Your task to perform on an android device: Open Google Chrome and open the bookmarks view Image 0: 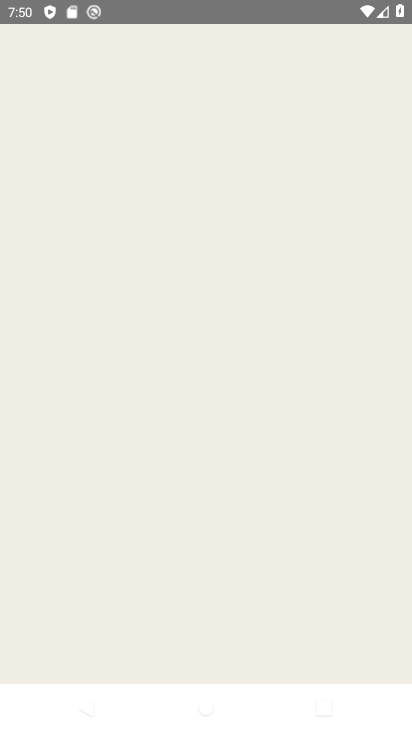
Step 0: drag from (278, 539) to (293, 262)
Your task to perform on an android device: Open Google Chrome and open the bookmarks view Image 1: 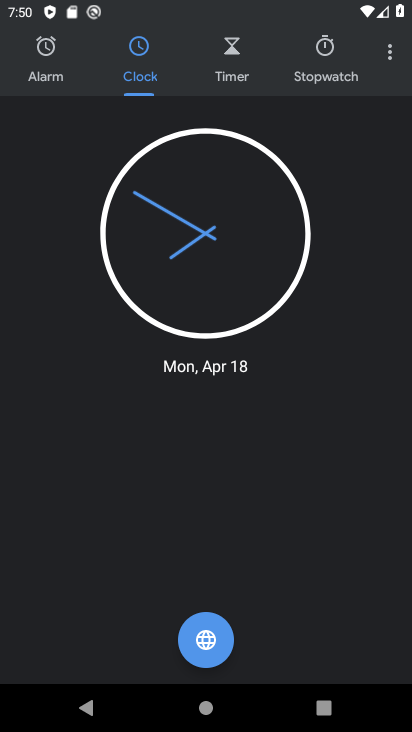
Step 1: press home button
Your task to perform on an android device: Open Google Chrome and open the bookmarks view Image 2: 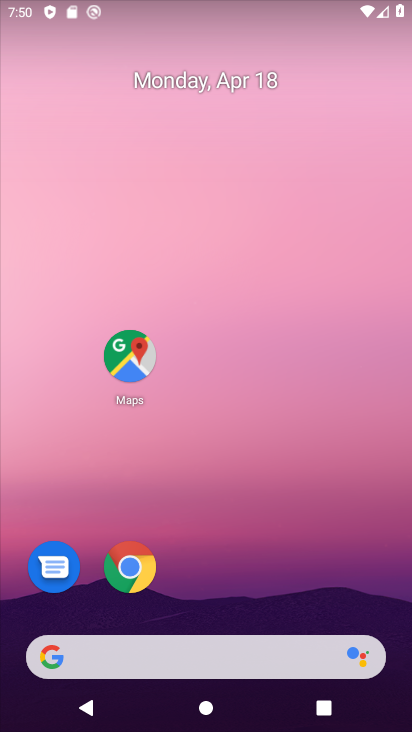
Step 2: drag from (237, 722) to (286, 251)
Your task to perform on an android device: Open Google Chrome and open the bookmarks view Image 3: 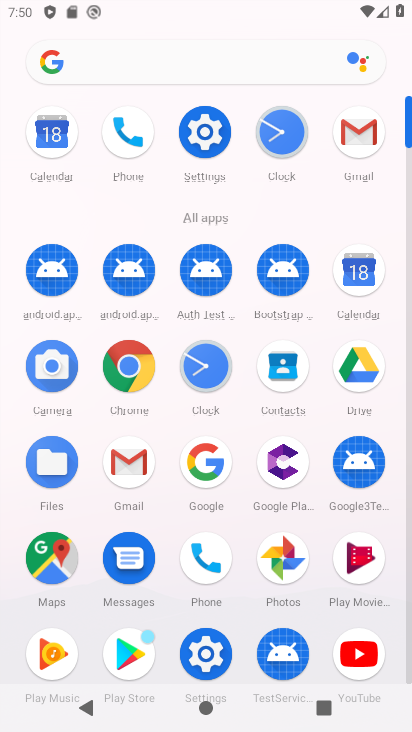
Step 3: click (292, 136)
Your task to perform on an android device: Open Google Chrome and open the bookmarks view Image 4: 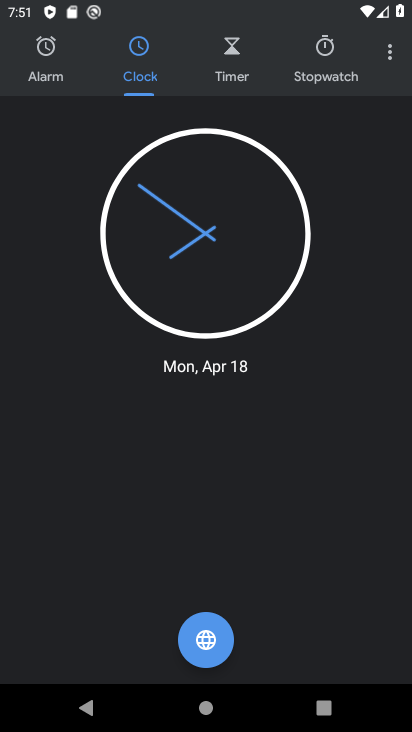
Step 4: press home button
Your task to perform on an android device: Open Google Chrome and open the bookmarks view Image 5: 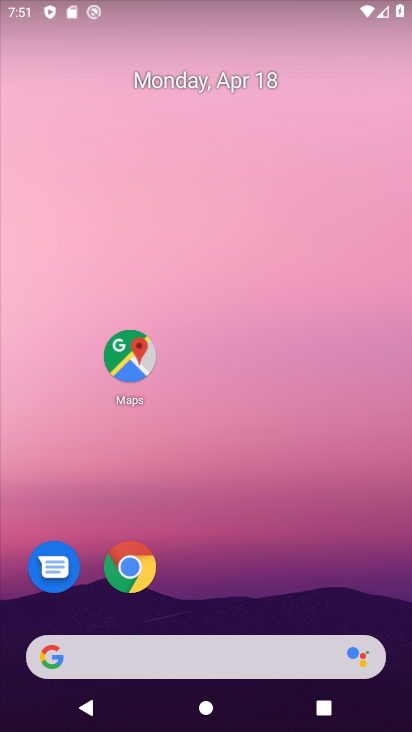
Step 5: click (135, 583)
Your task to perform on an android device: Open Google Chrome and open the bookmarks view Image 6: 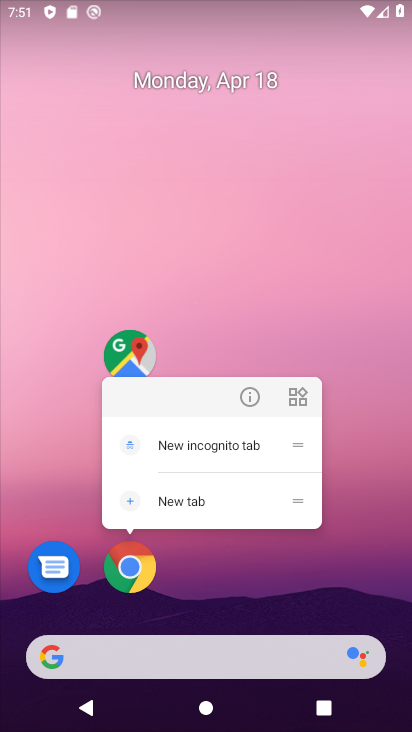
Step 6: click (173, 581)
Your task to perform on an android device: Open Google Chrome and open the bookmarks view Image 7: 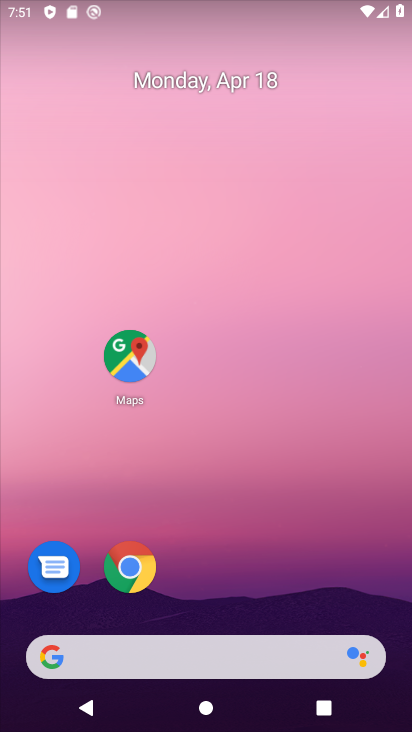
Step 7: drag from (337, 628) to (404, 636)
Your task to perform on an android device: Open Google Chrome and open the bookmarks view Image 8: 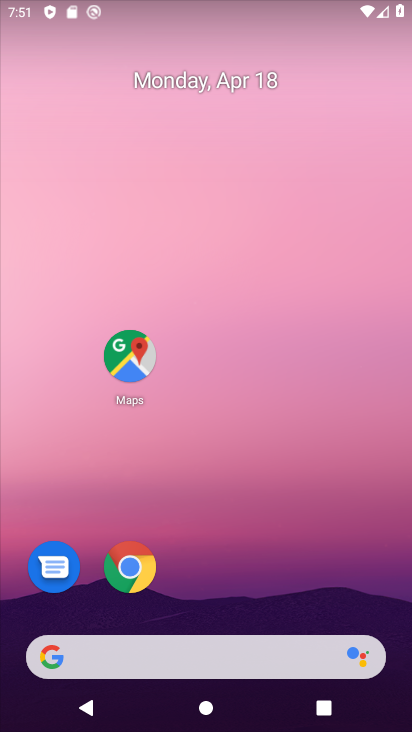
Step 8: click (126, 570)
Your task to perform on an android device: Open Google Chrome and open the bookmarks view Image 9: 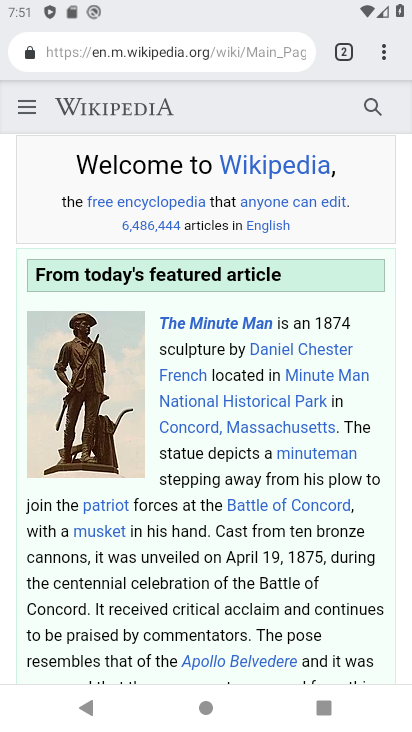
Step 9: click (384, 53)
Your task to perform on an android device: Open Google Chrome and open the bookmarks view Image 10: 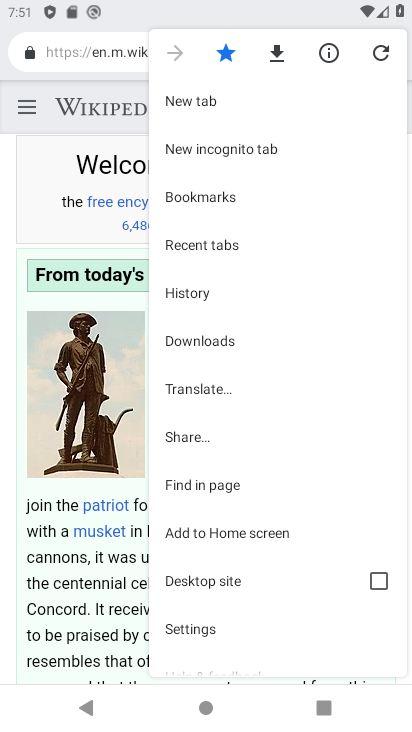
Step 10: click (205, 202)
Your task to perform on an android device: Open Google Chrome and open the bookmarks view Image 11: 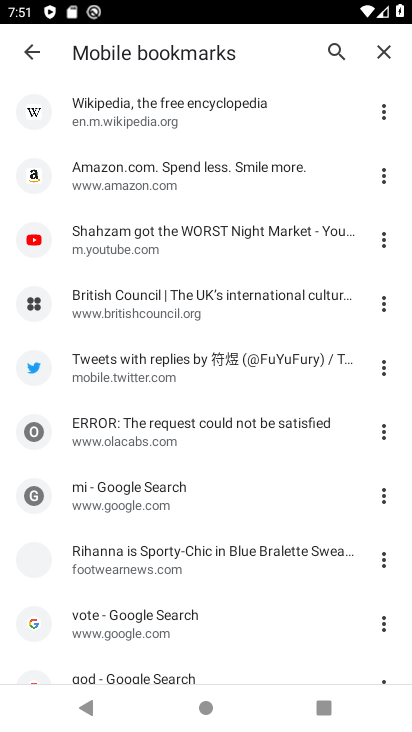
Step 11: task complete